Your task to perform on an android device: Go to internet settings Image 0: 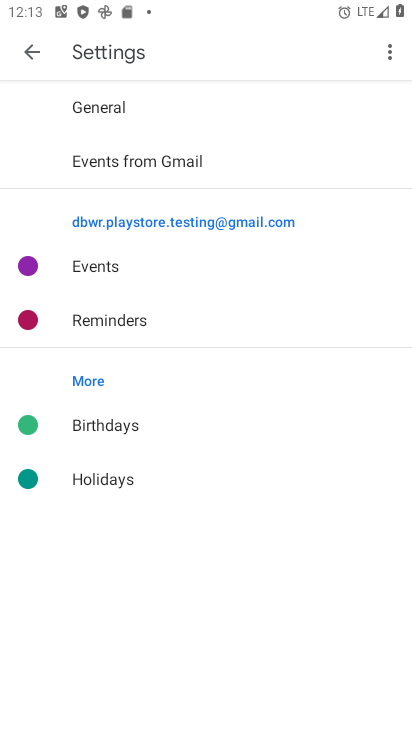
Step 0: press home button
Your task to perform on an android device: Go to internet settings Image 1: 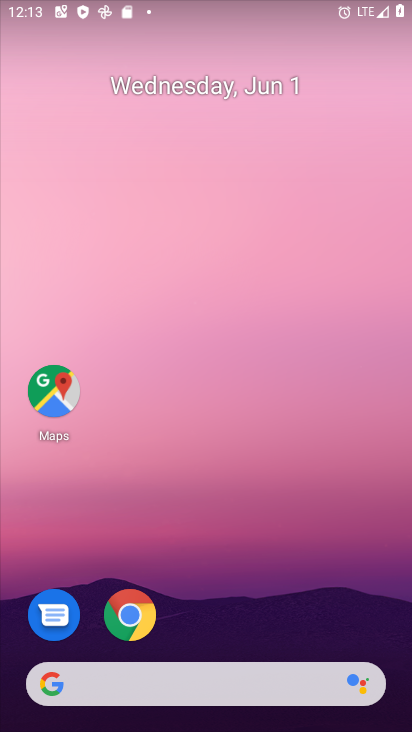
Step 1: drag from (323, 569) to (332, 96)
Your task to perform on an android device: Go to internet settings Image 2: 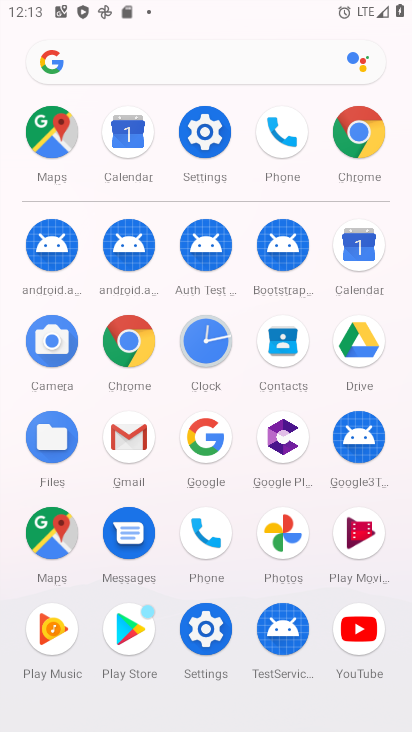
Step 2: click (209, 132)
Your task to perform on an android device: Go to internet settings Image 3: 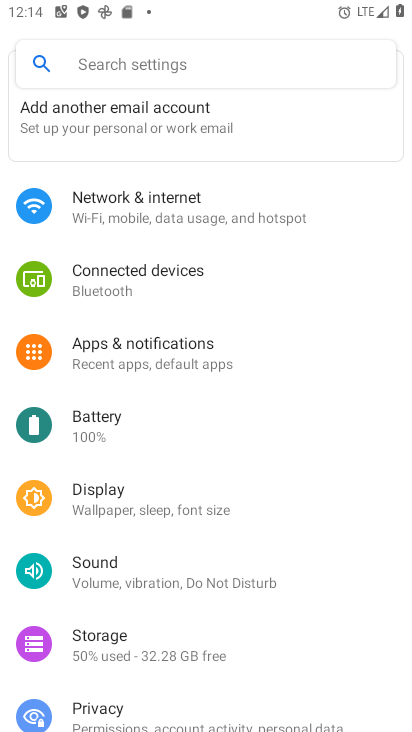
Step 3: click (71, 203)
Your task to perform on an android device: Go to internet settings Image 4: 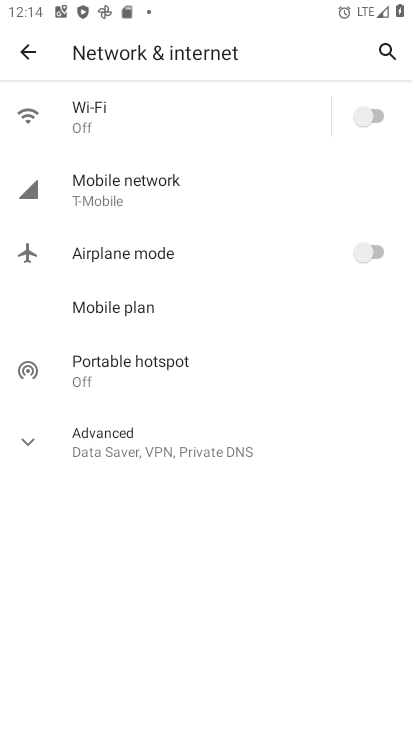
Step 4: task complete